Your task to perform on an android device: turn on the 12-hour format for clock Image 0: 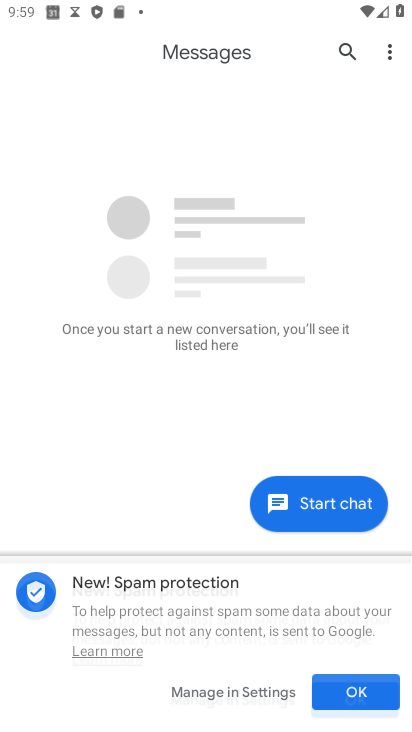
Step 0: drag from (272, 638) to (406, 335)
Your task to perform on an android device: turn on the 12-hour format for clock Image 1: 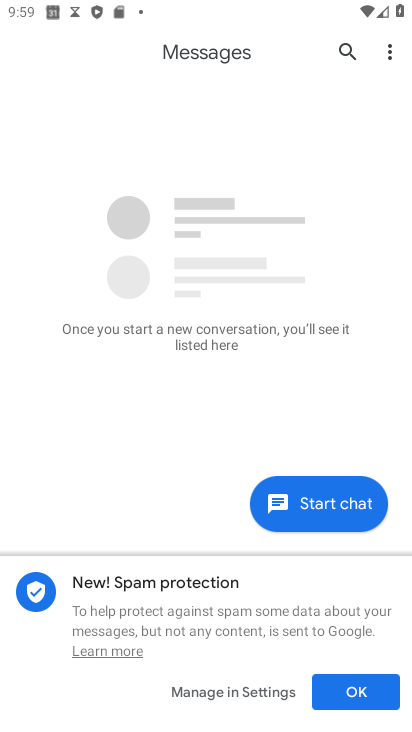
Step 1: press home button
Your task to perform on an android device: turn on the 12-hour format for clock Image 2: 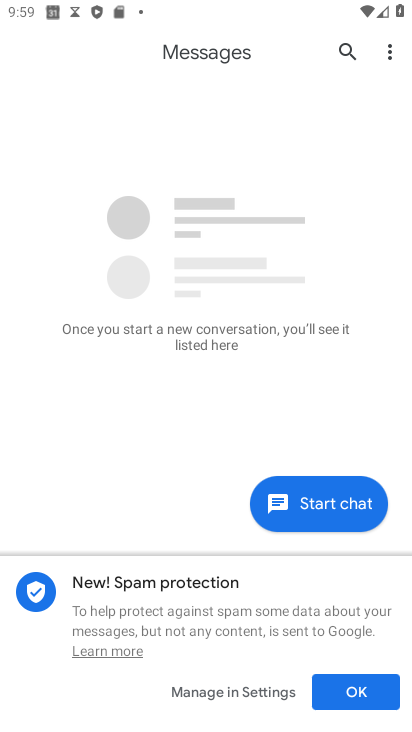
Step 2: drag from (406, 335) to (404, 597)
Your task to perform on an android device: turn on the 12-hour format for clock Image 3: 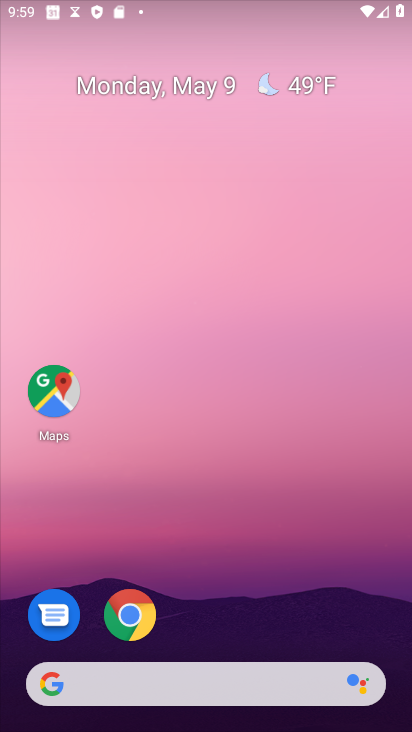
Step 3: drag from (299, 616) to (299, 155)
Your task to perform on an android device: turn on the 12-hour format for clock Image 4: 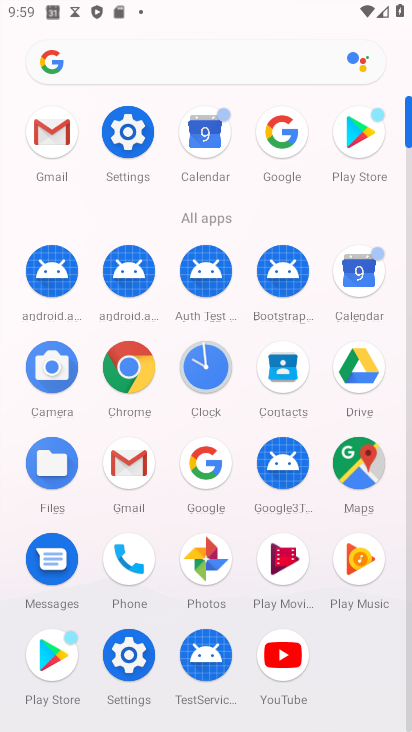
Step 4: click (215, 369)
Your task to perform on an android device: turn on the 12-hour format for clock Image 5: 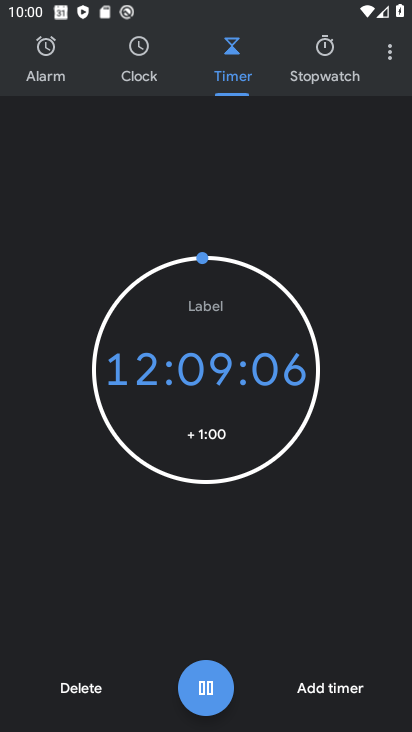
Step 5: click (389, 55)
Your task to perform on an android device: turn on the 12-hour format for clock Image 6: 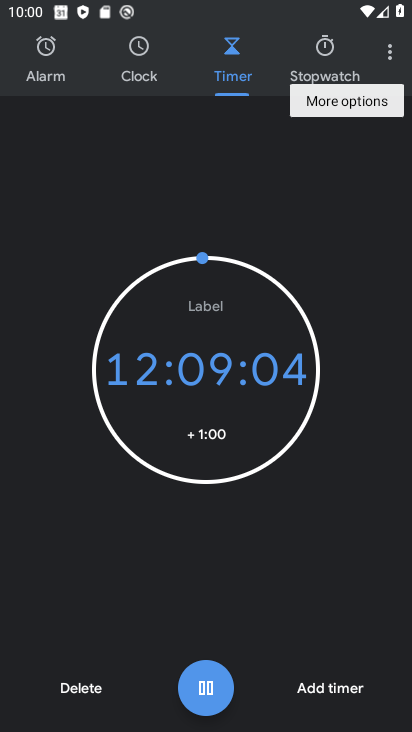
Step 6: click (389, 55)
Your task to perform on an android device: turn on the 12-hour format for clock Image 7: 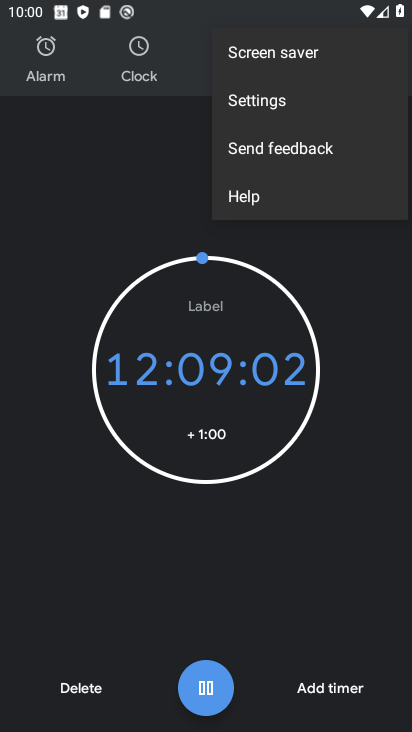
Step 7: click (301, 107)
Your task to perform on an android device: turn on the 12-hour format for clock Image 8: 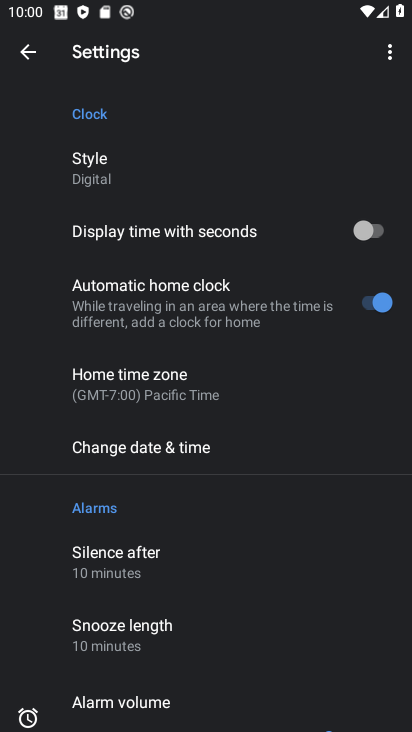
Step 8: drag from (239, 582) to (238, 482)
Your task to perform on an android device: turn on the 12-hour format for clock Image 9: 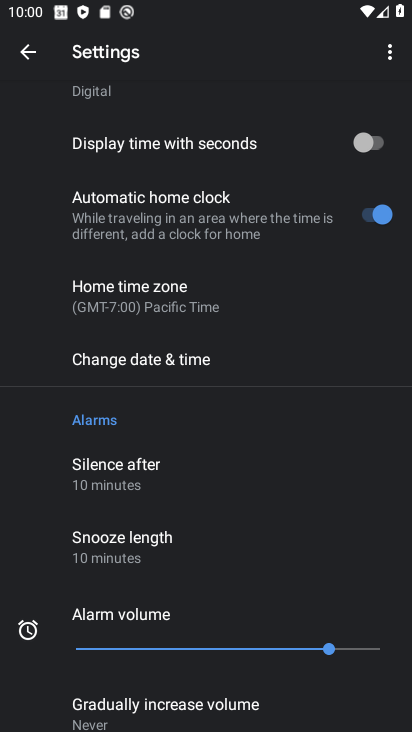
Step 9: click (196, 366)
Your task to perform on an android device: turn on the 12-hour format for clock Image 10: 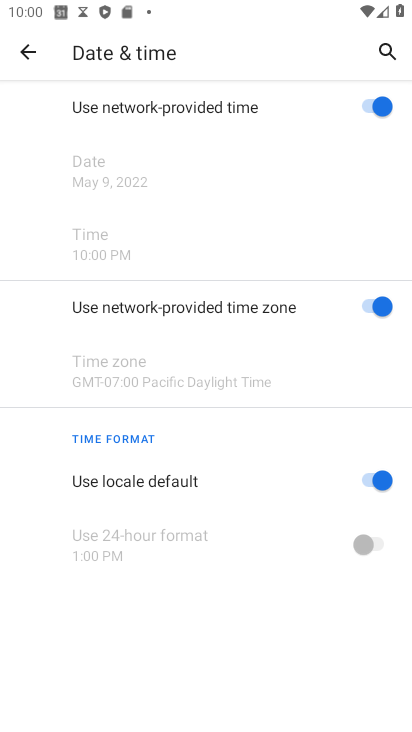
Step 10: task complete